Your task to perform on an android device: clear history in the chrome app Image 0: 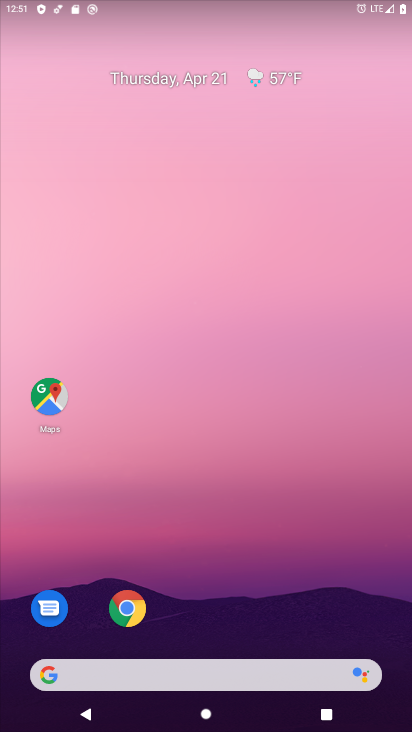
Step 0: click (120, 595)
Your task to perform on an android device: clear history in the chrome app Image 1: 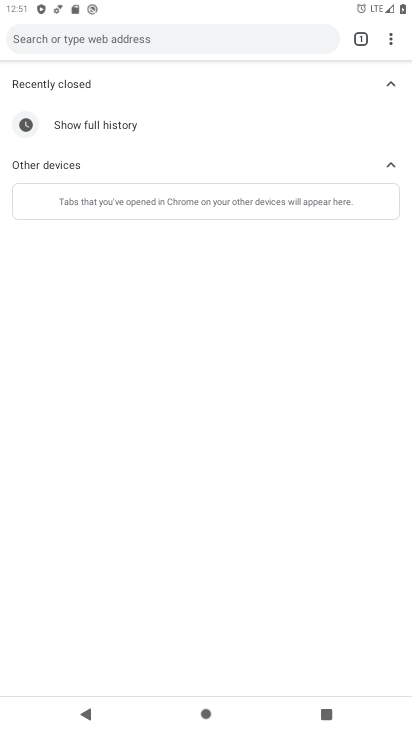
Step 1: drag from (388, 38) to (246, 269)
Your task to perform on an android device: clear history in the chrome app Image 2: 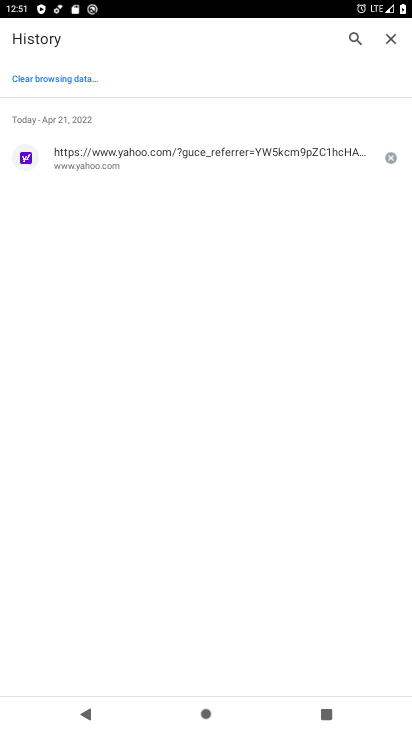
Step 2: click (67, 80)
Your task to perform on an android device: clear history in the chrome app Image 3: 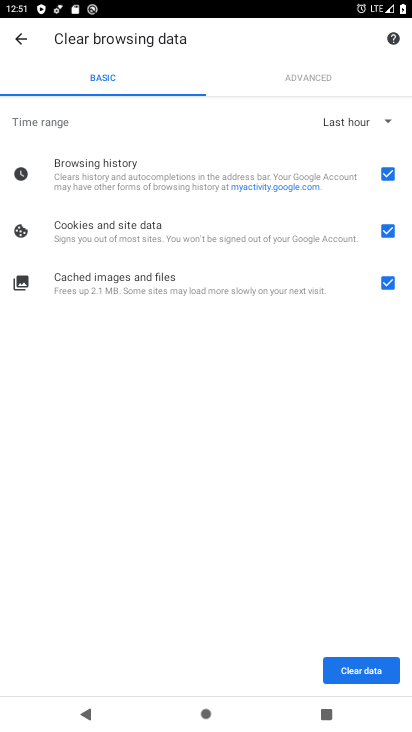
Step 3: click (365, 672)
Your task to perform on an android device: clear history in the chrome app Image 4: 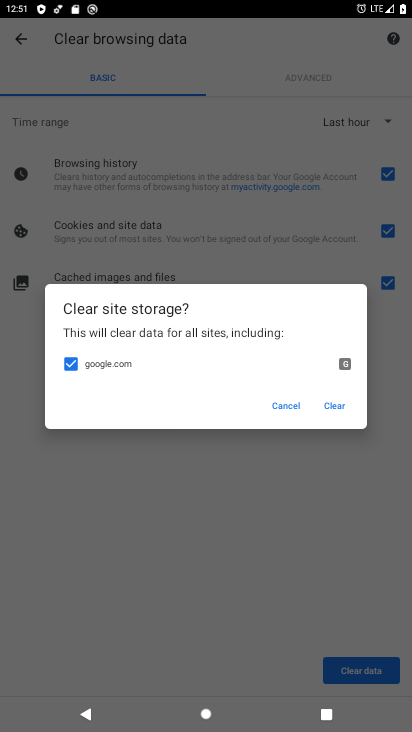
Step 4: click (341, 403)
Your task to perform on an android device: clear history in the chrome app Image 5: 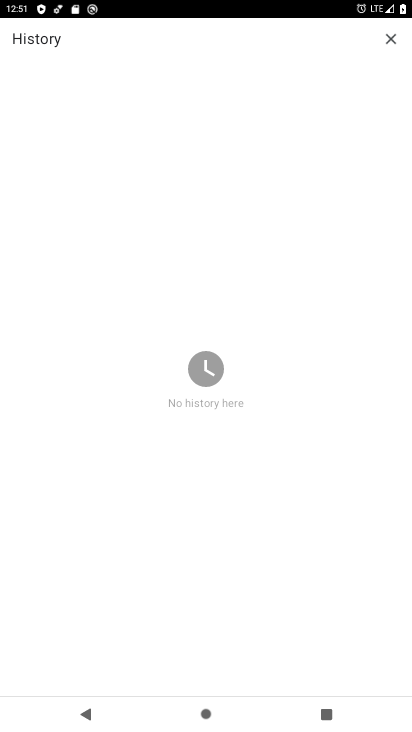
Step 5: task complete